Your task to perform on an android device: change alarm snooze length Image 0: 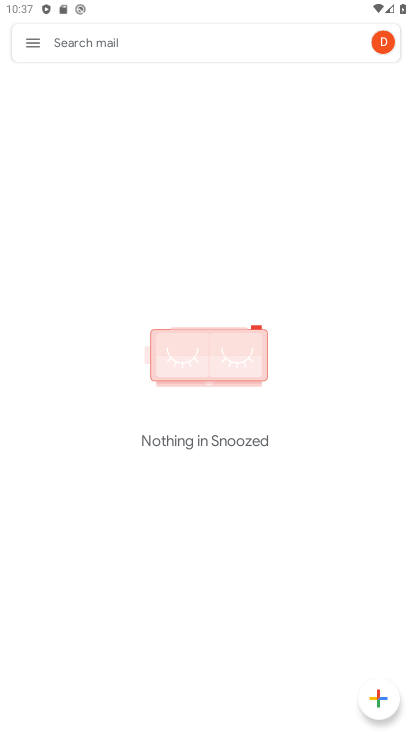
Step 0: press home button
Your task to perform on an android device: change alarm snooze length Image 1: 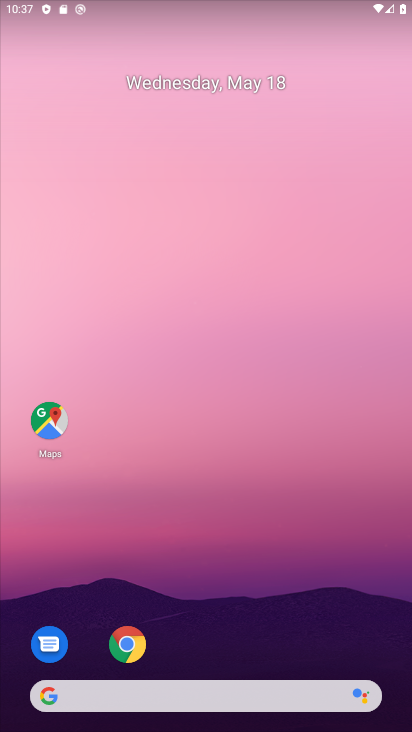
Step 1: drag from (325, 612) to (221, 80)
Your task to perform on an android device: change alarm snooze length Image 2: 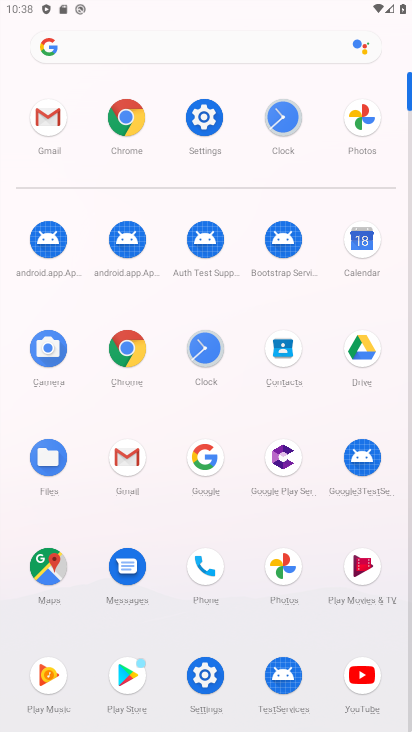
Step 2: click (271, 110)
Your task to perform on an android device: change alarm snooze length Image 3: 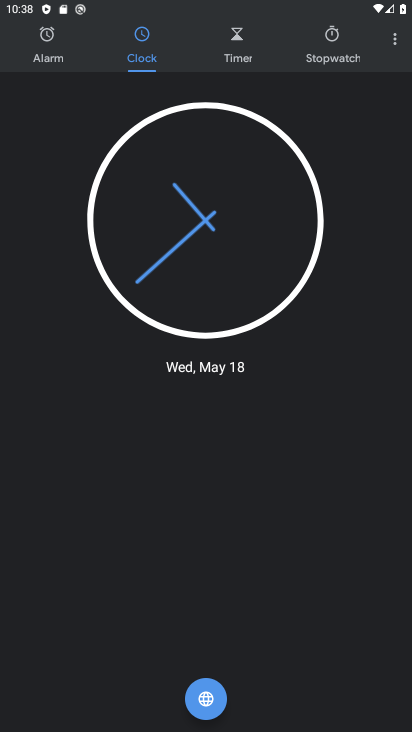
Step 3: click (392, 35)
Your task to perform on an android device: change alarm snooze length Image 4: 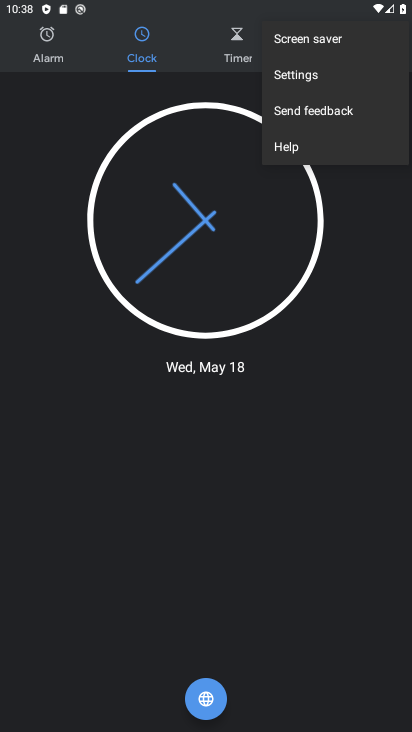
Step 4: click (318, 76)
Your task to perform on an android device: change alarm snooze length Image 5: 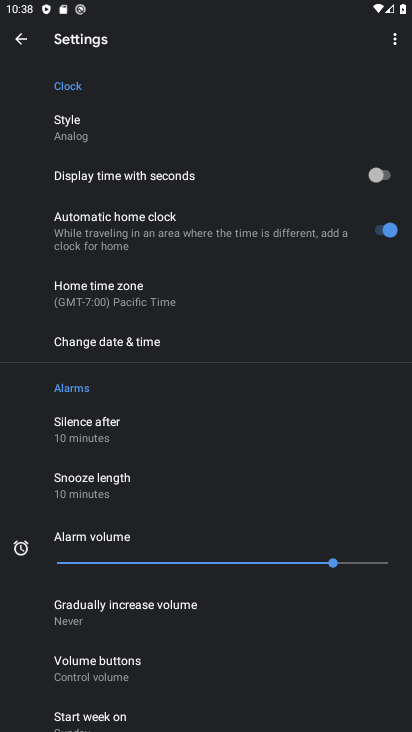
Step 5: drag from (132, 689) to (198, 424)
Your task to perform on an android device: change alarm snooze length Image 6: 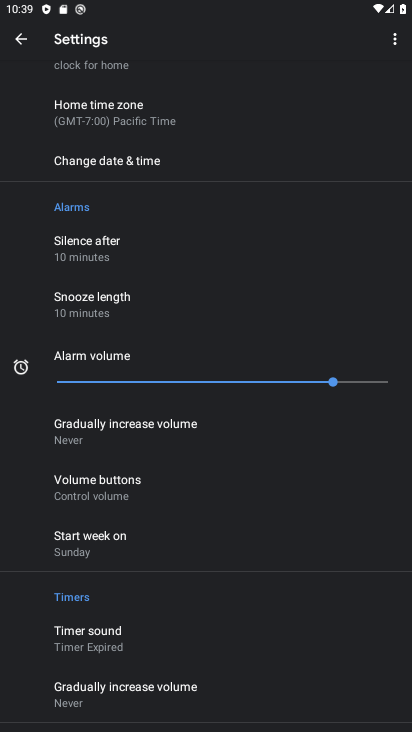
Step 6: click (127, 309)
Your task to perform on an android device: change alarm snooze length Image 7: 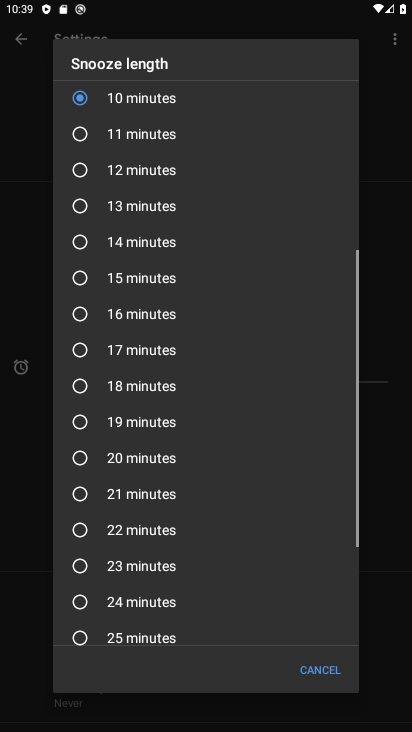
Step 7: click (109, 313)
Your task to perform on an android device: change alarm snooze length Image 8: 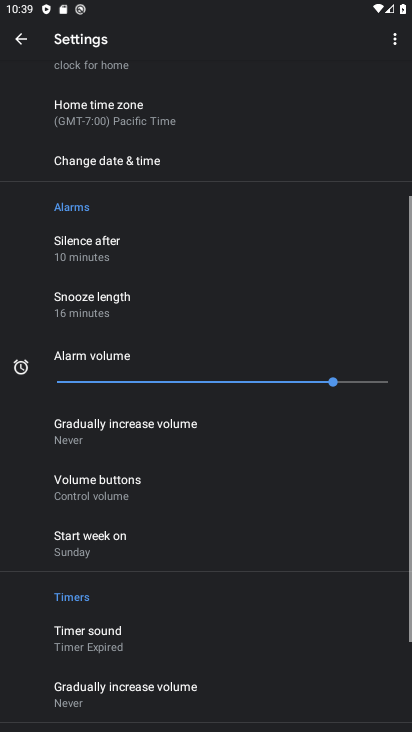
Step 8: task complete